Your task to perform on an android device: turn off priority inbox in the gmail app Image 0: 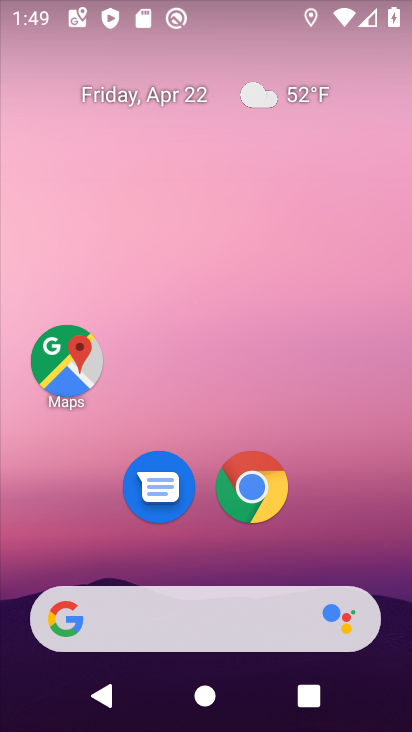
Step 0: drag from (199, 458) to (259, 60)
Your task to perform on an android device: turn off priority inbox in the gmail app Image 1: 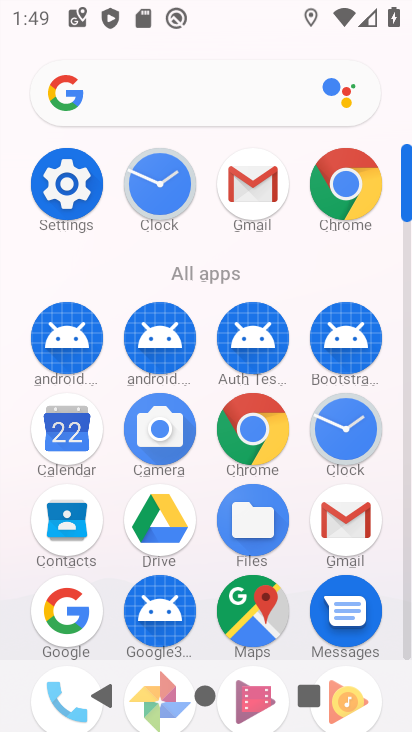
Step 1: click (351, 527)
Your task to perform on an android device: turn off priority inbox in the gmail app Image 2: 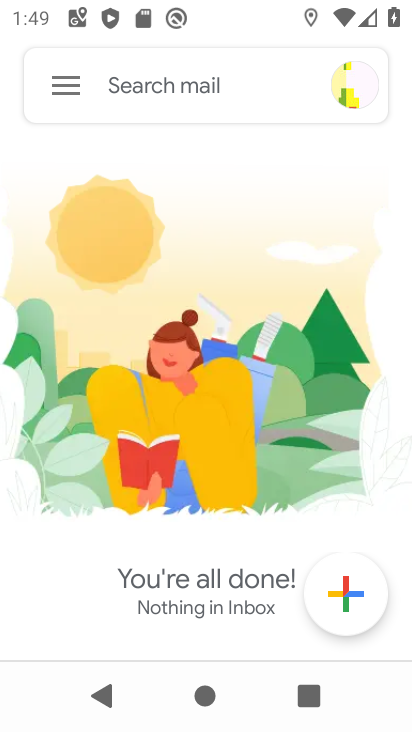
Step 2: click (65, 99)
Your task to perform on an android device: turn off priority inbox in the gmail app Image 3: 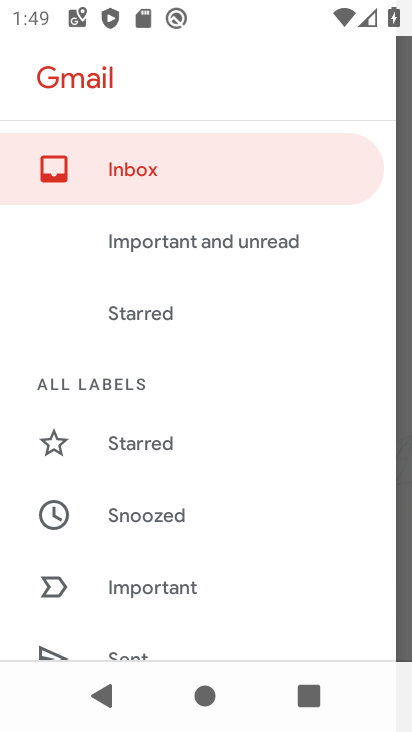
Step 3: click (62, 88)
Your task to perform on an android device: turn off priority inbox in the gmail app Image 4: 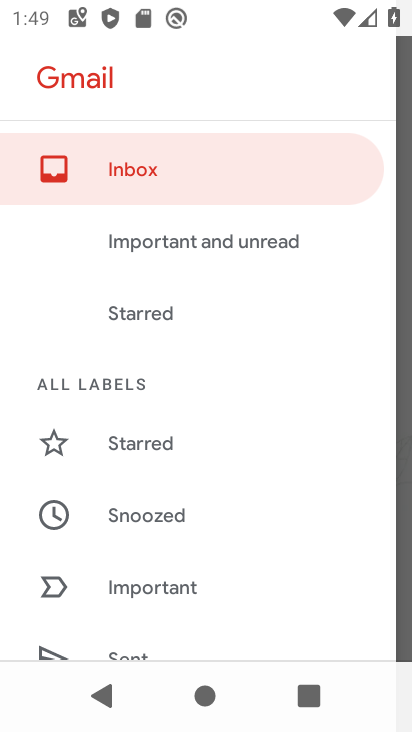
Step 4: drag from (147, 536) to (209, 277)
Your task to perform on an android device: turn off priority inbox in the gmail app Image 5: 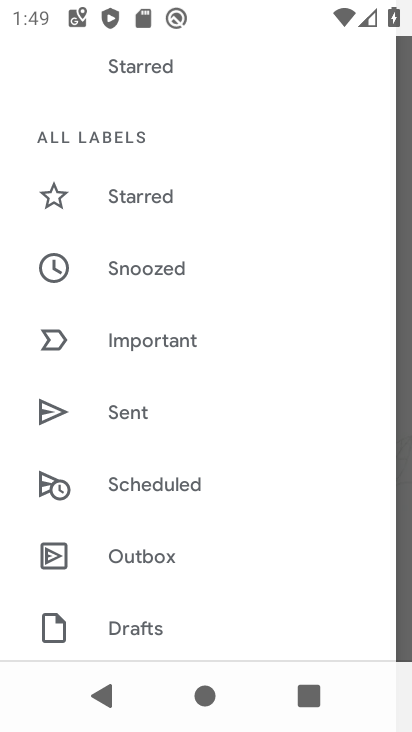
Step 5: drag from (162, 592) to (188, 265)
Your task to perform on an android device: turn off priority inbox in the gmail app Image 6: 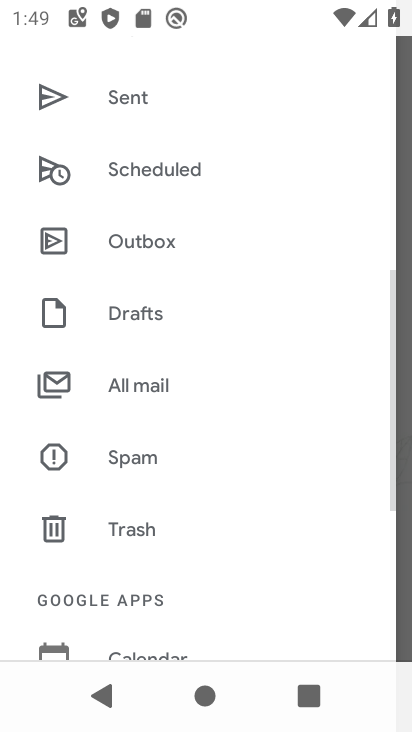
Step 6: drag from (121, 620) to (231, 65)
Your task to perform on an android device: turn off priority inbox in the gmail app Image 7: 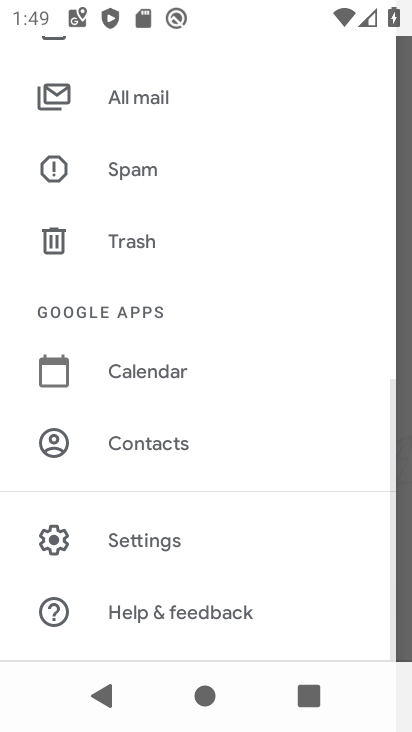
Step 7: click (158, 546)
Your task to perform on an android device: turn off priority inbox in the gmail app Image 8: 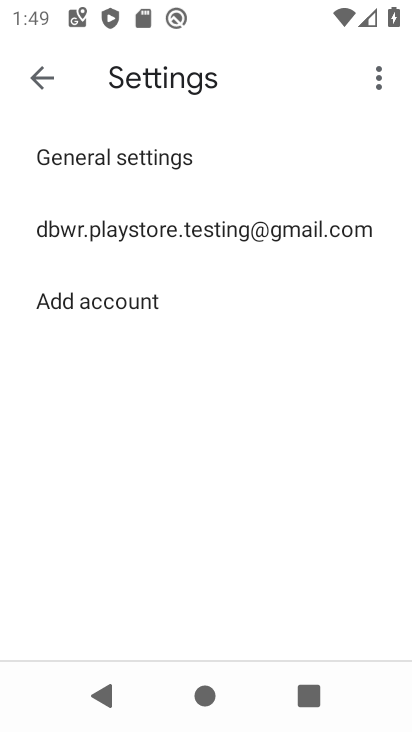
Step 8: click (134, 227)
Your task to perform on an android device: turn off priority inbox in the gmail app Image 9: 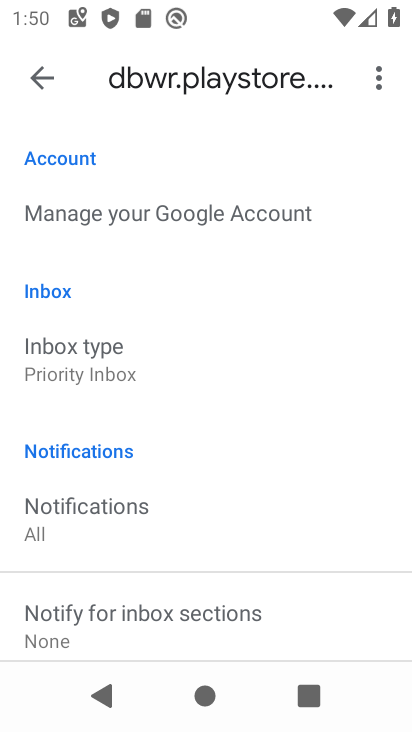
Step 9: click (92, 369)
Your task to perform on an android device: turn off priority inbox in the gmail app Image 10: 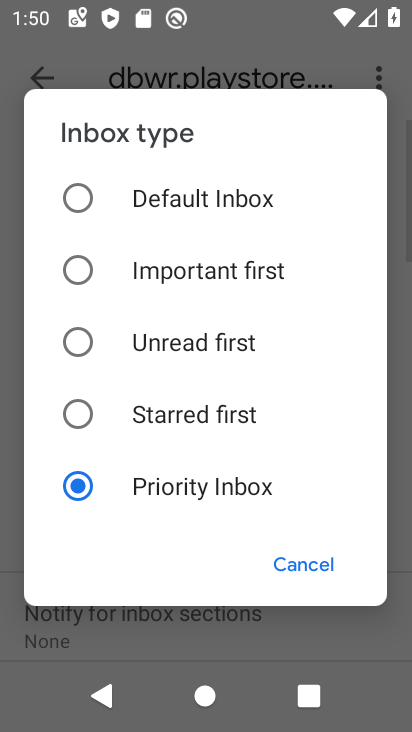
Step 10: click (80, 208)
Your task to perform on an android device: turn off priority inbox in the gmail app Image 11: 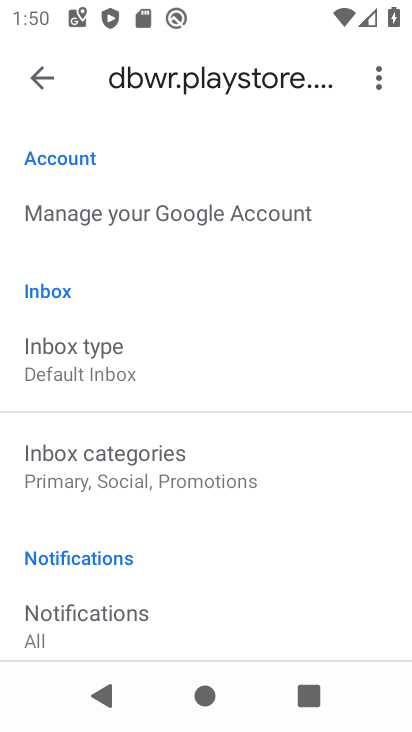
Step 11: task complete